Your task to perform on an android device: toggle pop-ups in chrome Image 0: 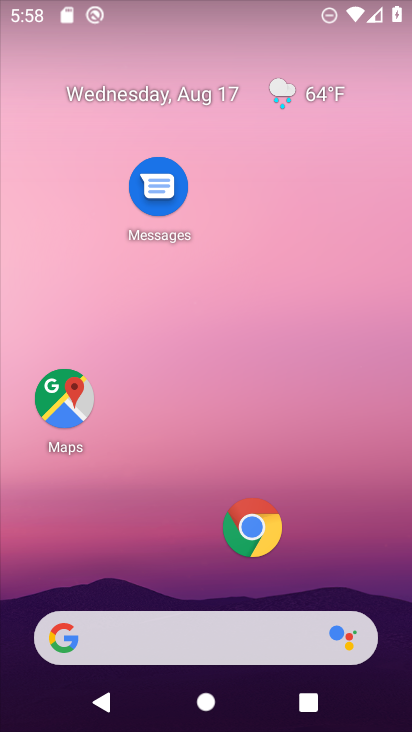
Step 0: click (251, 532)
Your task to perform on an android device: toggle pop-ups in chrome Image 1: 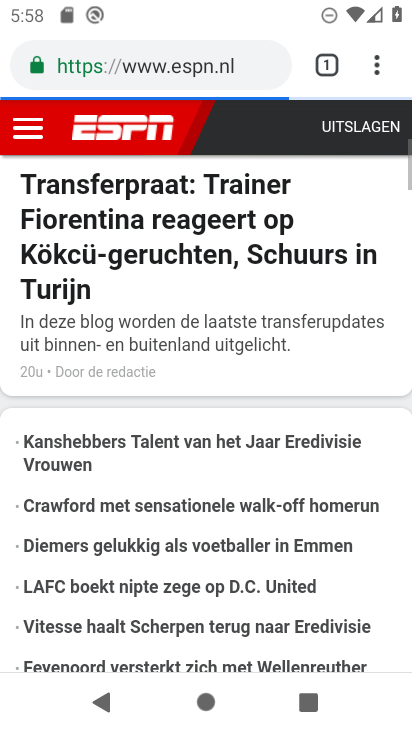
Step 1: click (372, 66)
Your task to perform on an android device: toggle pop-ups in chrome Image 2: 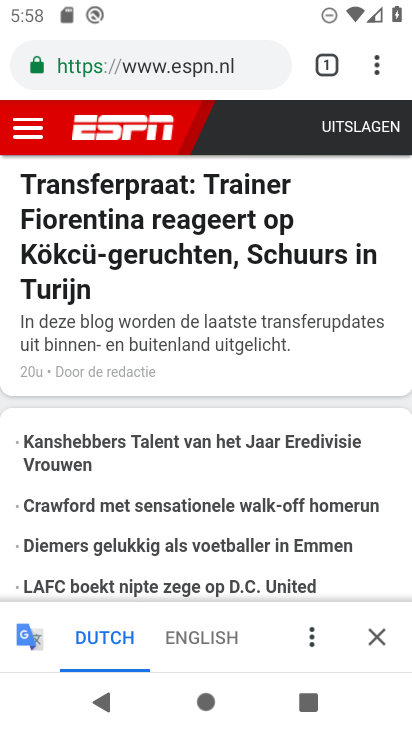
Step 2: click (373, 67)
Your task to perform on an android device: toggle pop-ups in chrome Image 3: 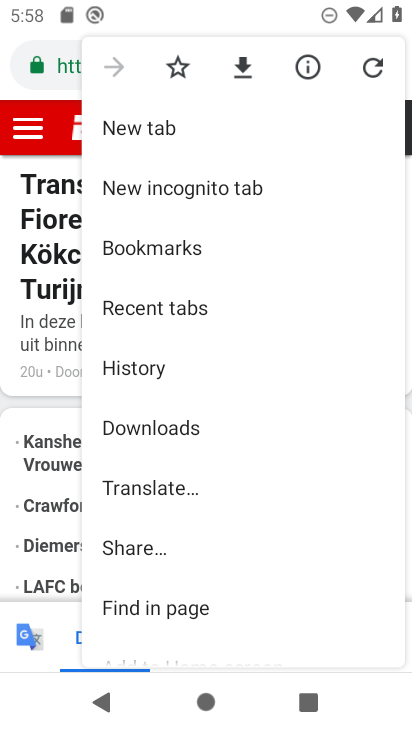
Step 3: drag from (185, 607) to (259, 17)
Your task to perform on an android device: toggle pop-ups in chrome Image 4: 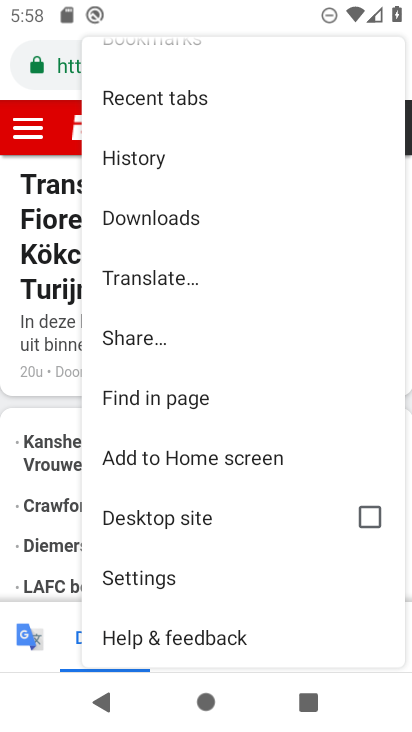
Step 4: click (156, 575)
Your task to perform on an android device: toggle pop-ups in chrome Image 5: 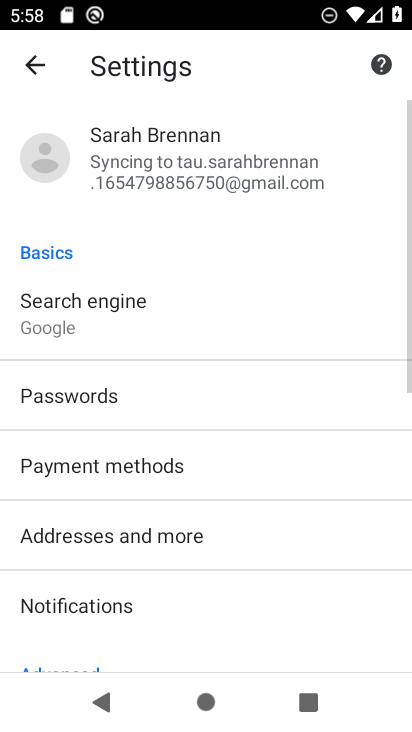
Step 5: drag from (167, 565) to (200, 80)
Your task to perform on an android device: toggle pop-ups in chrome Image 6: 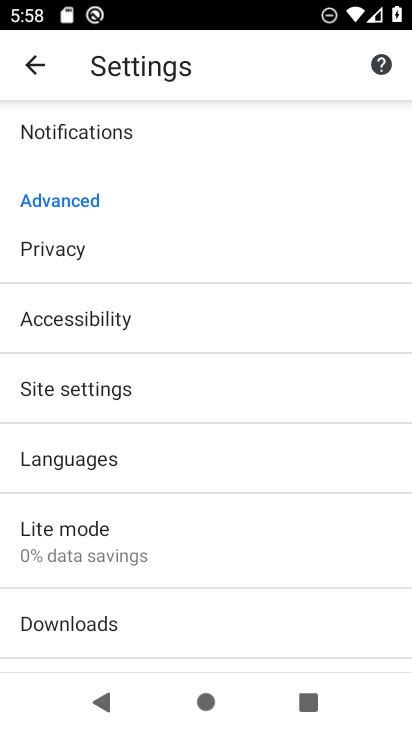
Step 6: click (61, 398)
Your task to perform on an android device: toggle pop-ups in chrome Image 7: 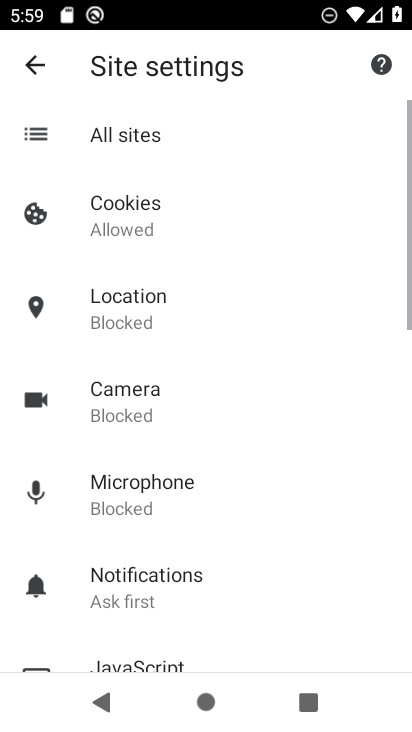
Step 7: drag from (100, 626) to (154, 231)
Your task to perform on an android device: toggle pop-ups in chrome Image 8: 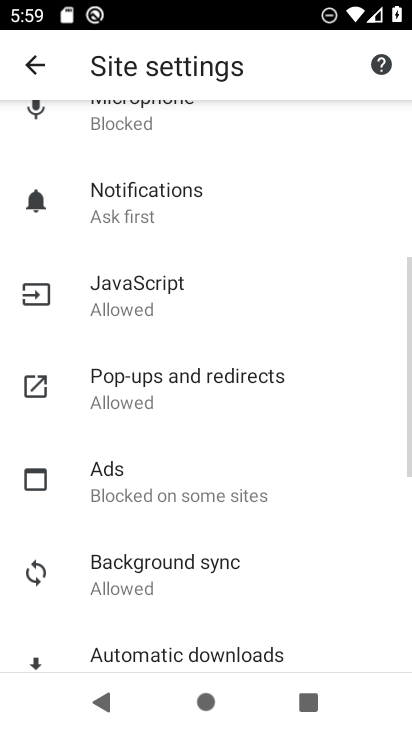
Step 8: click (158, 377)
Your task to perform on an android device: toggle pop-ups in chrome Image 9: 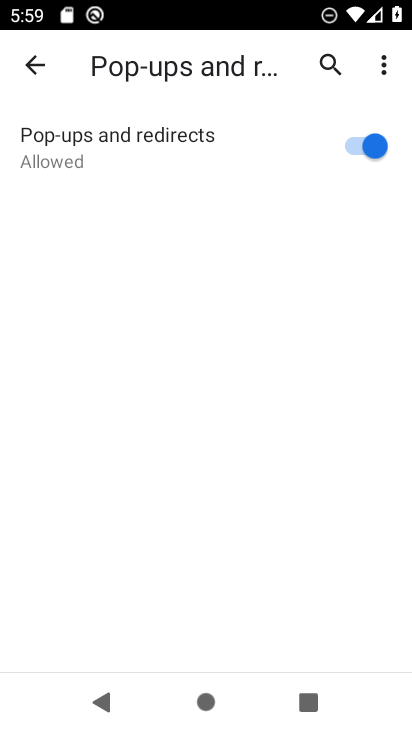
Step 9: click (361, 143)
Your task to perform on an android device: toggle pop-ups in chrome Image 10: 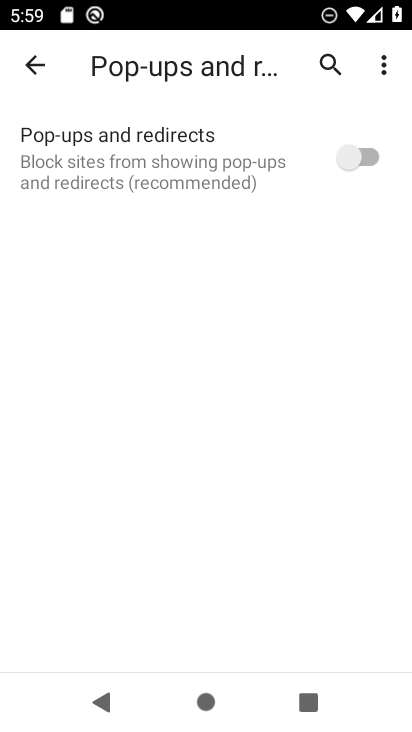
Step 10: task complete